Your task to perform on an android device: toggle priority inbox in the gmail app Image 0: 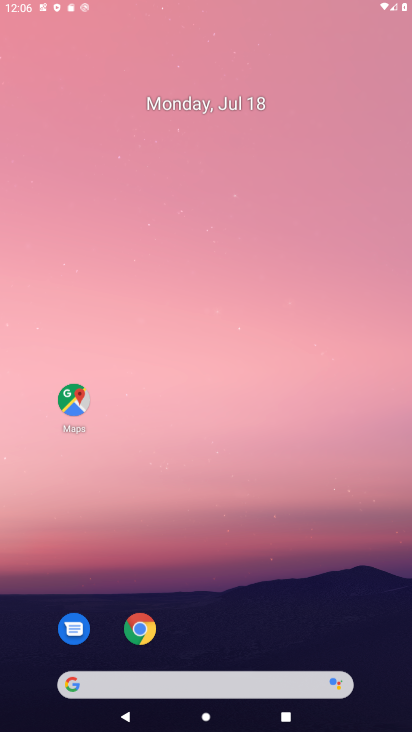
Step 0: press home button
Your task to perform on an android device: toggle priority inbox in the gmail app Image 1: 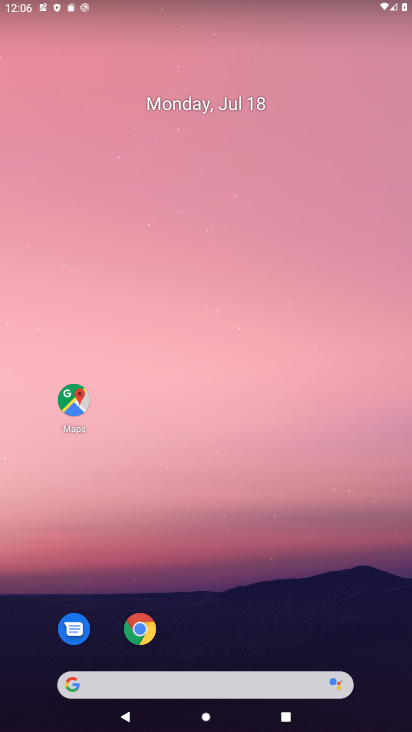
Step 1: drag from (235, 646) to (241, 31)
Your task to perform on an android device: toggle priority inbox in the gmail app Image 2: 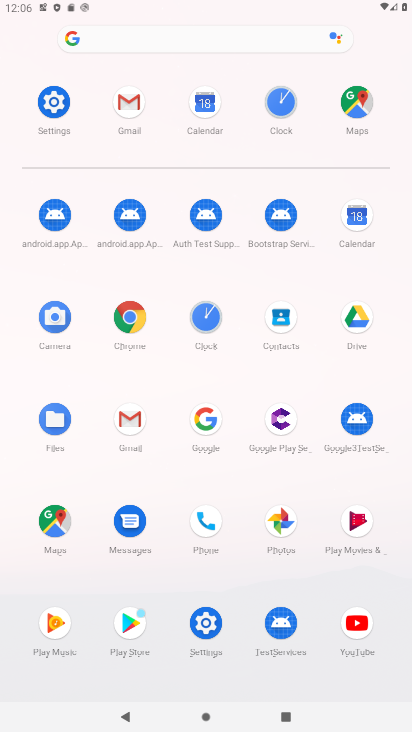
Step 2: click (129, 412)
Your task to perform on an android device: toggle priority inbox in the gmail app Image 3: 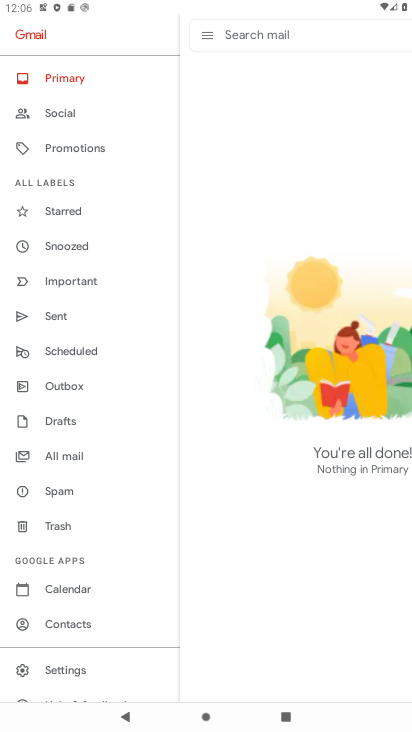
Step 3: click (92, 665)
Your task to perform on an android device: toggle priority inbox in the gmail app Image 4: 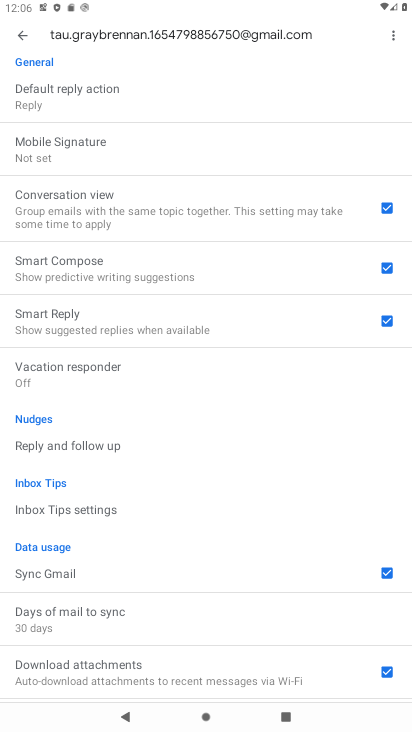
Step 4: drag from (97, 153) to (124, 649)
Your task to perform on an android device: toggle priority inbox in the gmail app Image 5: 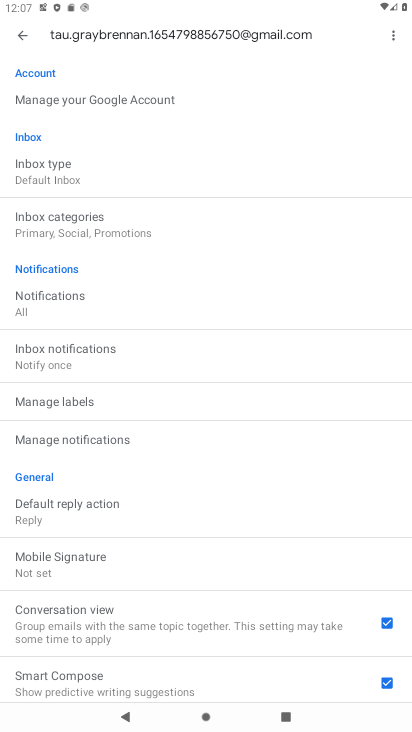
Step 5: click (91, 170)
Your task to perform on an android device: toggle priority inbox in the gmail app Image 6: 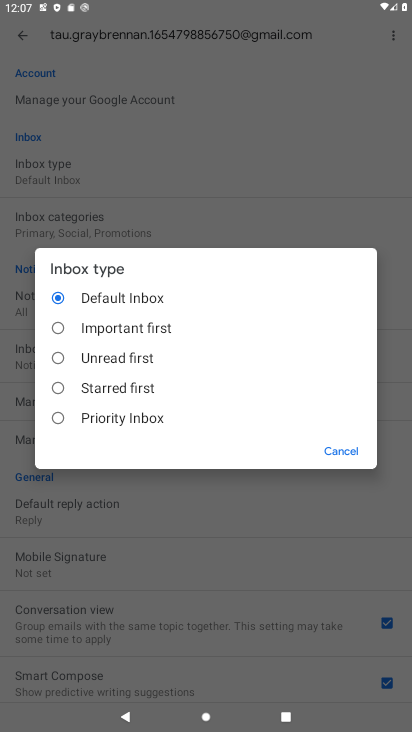
Step 6: click (57, 420)
Your task to perform on an android device: toggle priority inbox in the gmail app Image 7: 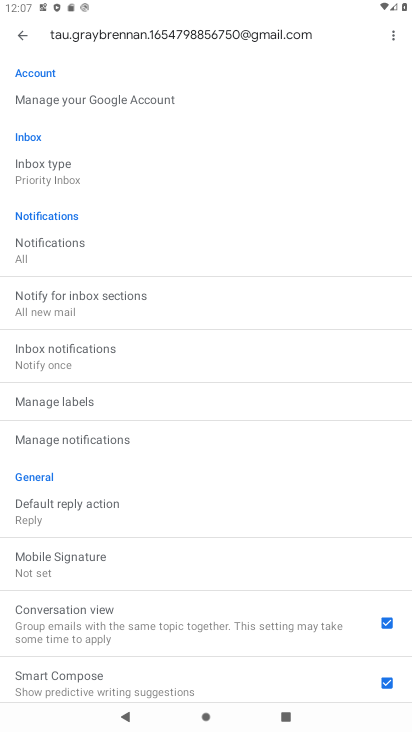
Step 7: task complete